Your task to perform on an android device: Search for Mexican restaurants on Maps Image 0: 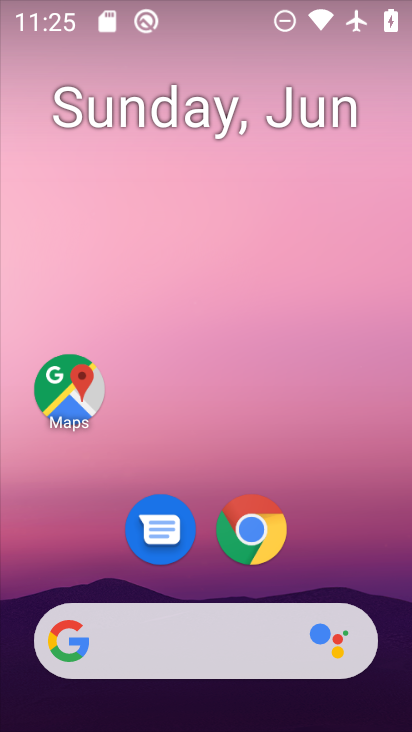
Step 0: click (73, 389)
Your task to perform on an android device: Search for Mexican restaurants on Maps Image 1: 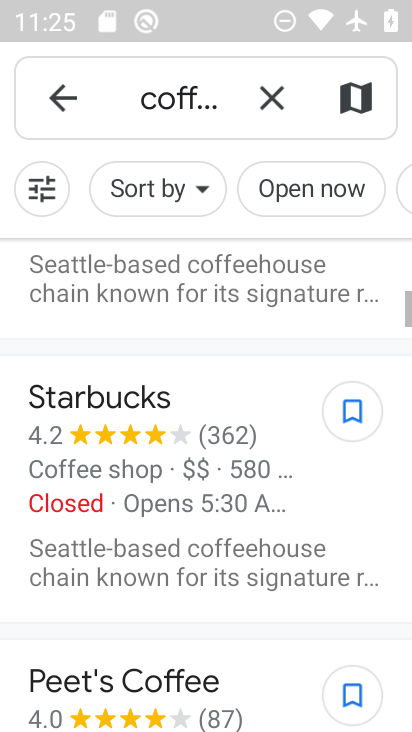
Step 1: click (271, 95)
Your task to perform on an android device: Search for Mexican restaurants on Maps Image 2: 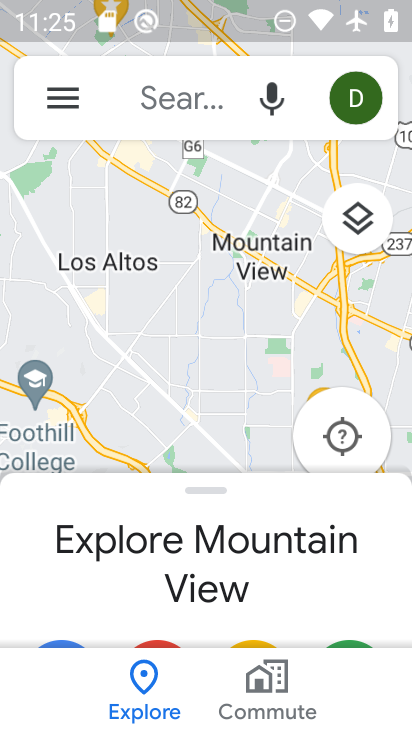
Step 2: click (156, 95)
Your task to perform on an android device: Search for Mexican restaurants on Maps Image 3: 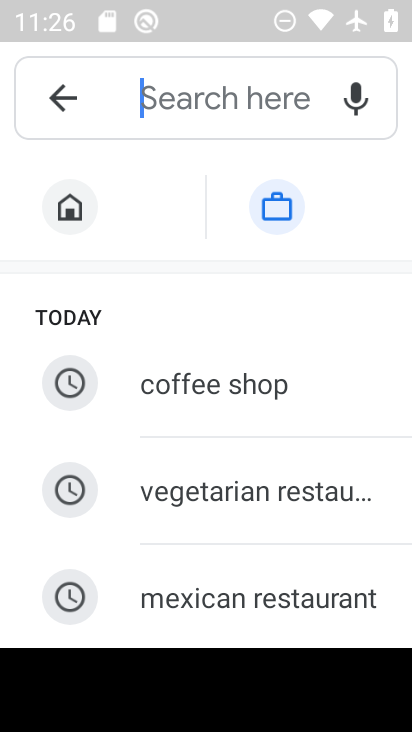
Step 3: type "mexican restaurants"
Your task to perform on an android device: Search for Mexican restaurants on Maps Image 4: 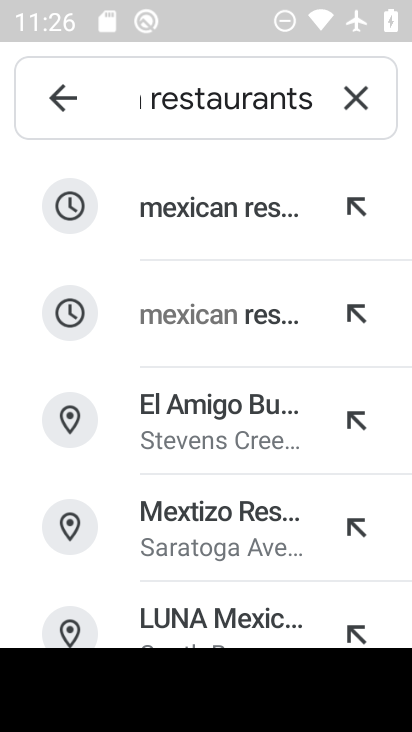
Step 4: click (239, 204)
Your task to perform on an android device: Search for Mexican restaurants on Maps Image 5: 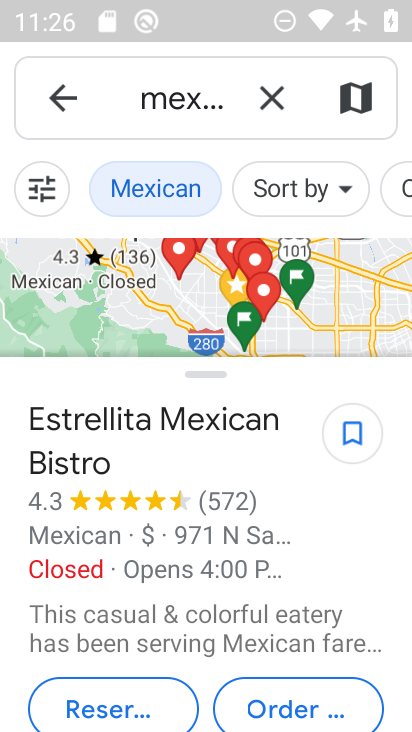
Step 5: task complete